Your task to perform on an android device: Go to display settings Image 0: 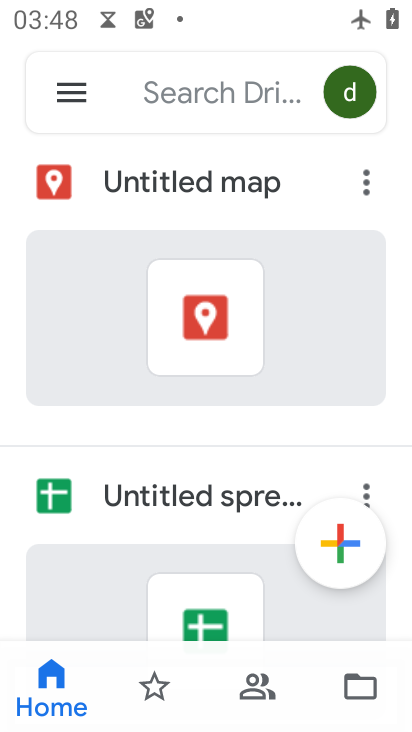
Step 0: press home button
Your task to perform on an android device: Go to display settings Image 1: 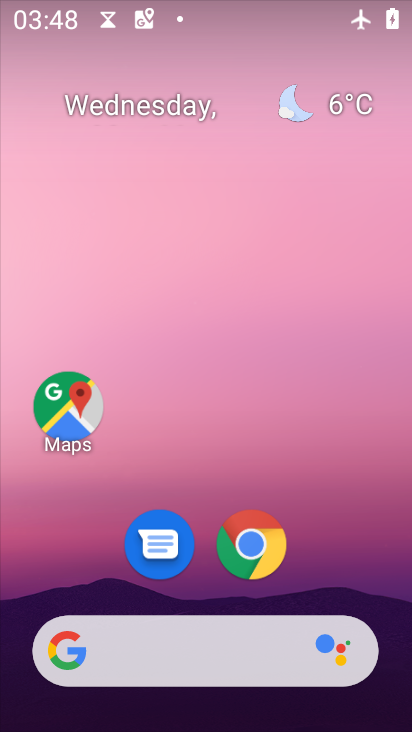
Step 1: drag from (316, 544) to (295, 26)
Your task to perform on an android device: Go to display settings Image 2: 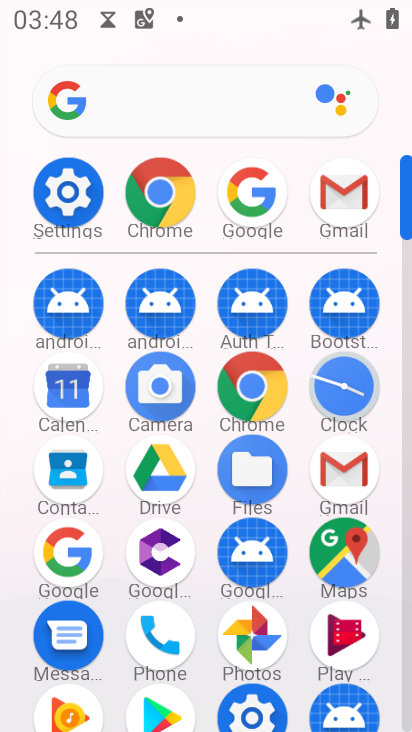
Step 2: click (72, 191)
Your task to perform on an android device: Go to display settings Image 3: 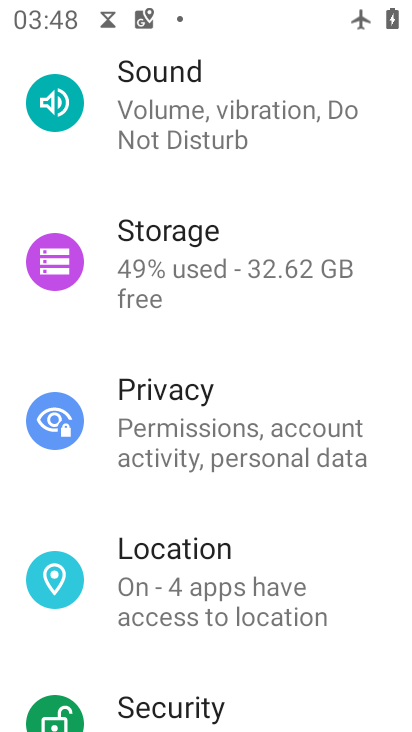
Step 3: drag from (180, 211) to (195, 486)
Your task to perform on an android device: Go to display settings Image 4: 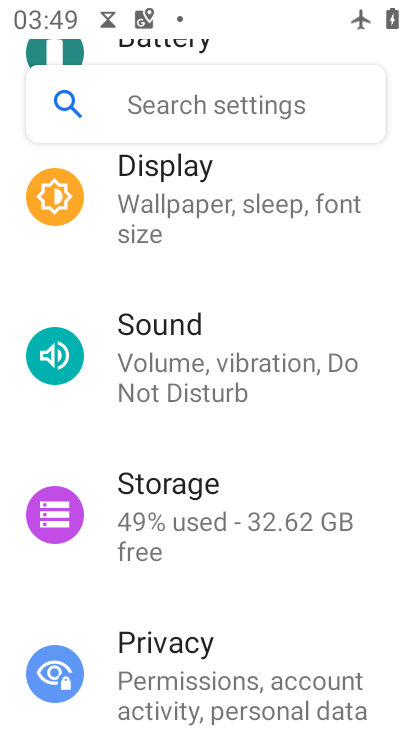
Step 4: drag from (199, 263) to (230, 655)
Your task to perform on an android device: Go to display settings Image 5: 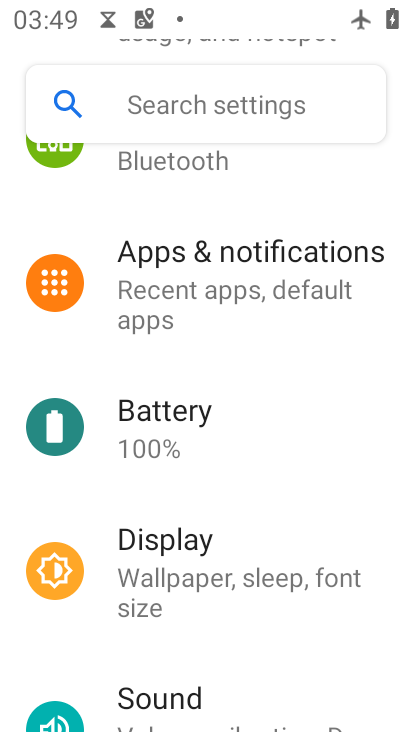
Step 5: drag from (203, 417) to (239, 577)
Your task to perform on an android device: Go to display settings Image 6: 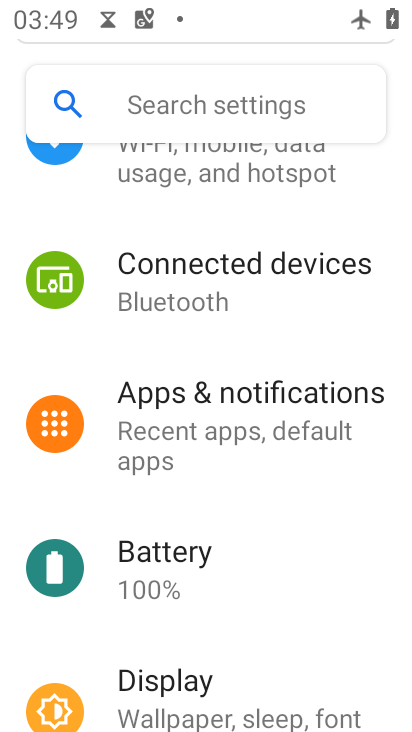
Step 6: click (183, 701)
Your task to perform on an android device: Go to display settings Image 7: 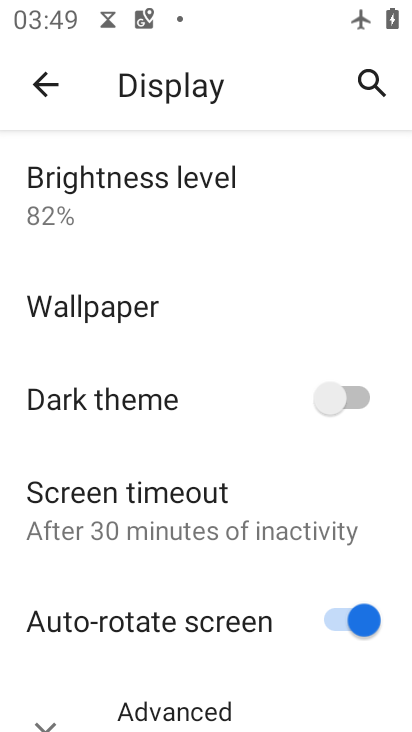
Step 7: task complete